Your task to perform on an android device: Show me the best rated 42 inch TV on Walmart. Image 0: 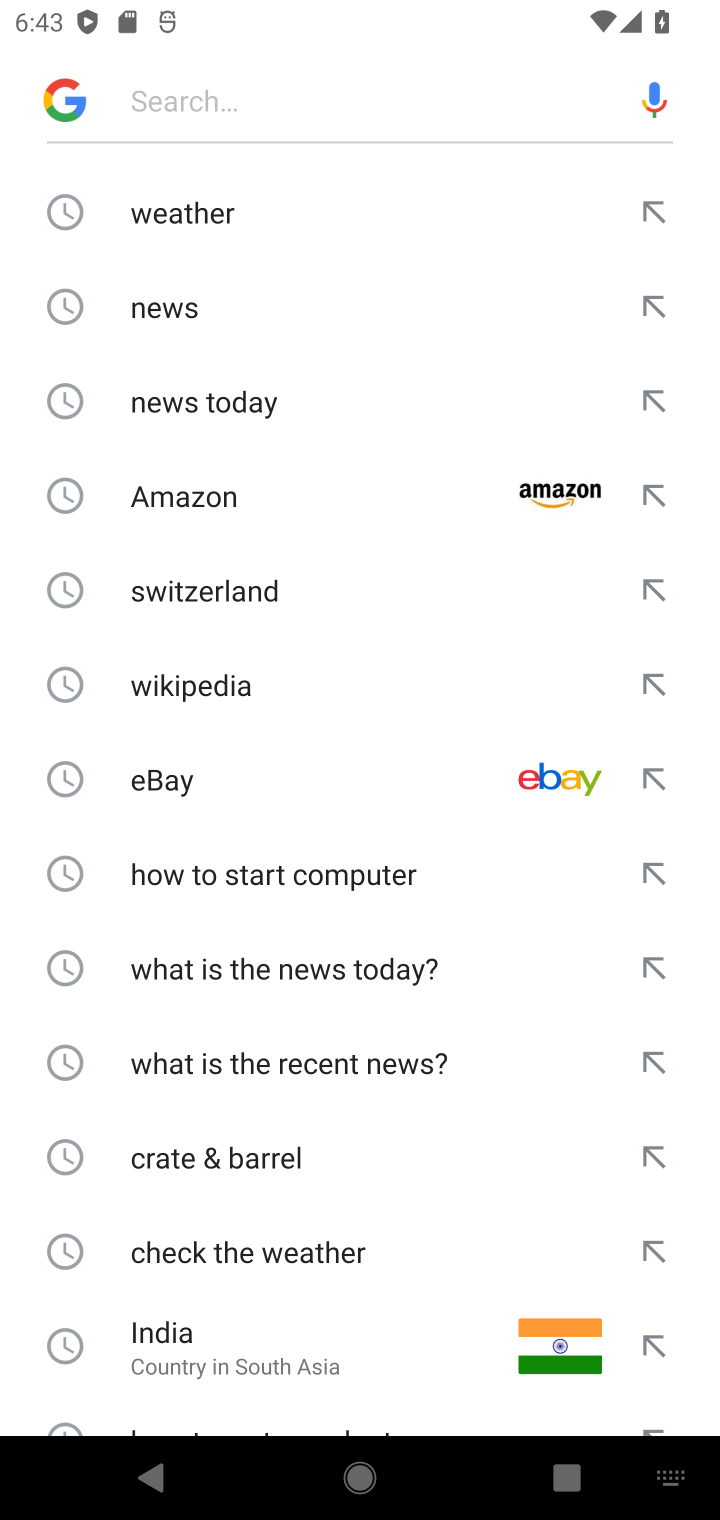
Step 0: press home button
Your task to perform on an android device: Show me the best rated 42 inch TV on Walmart. Image 1: 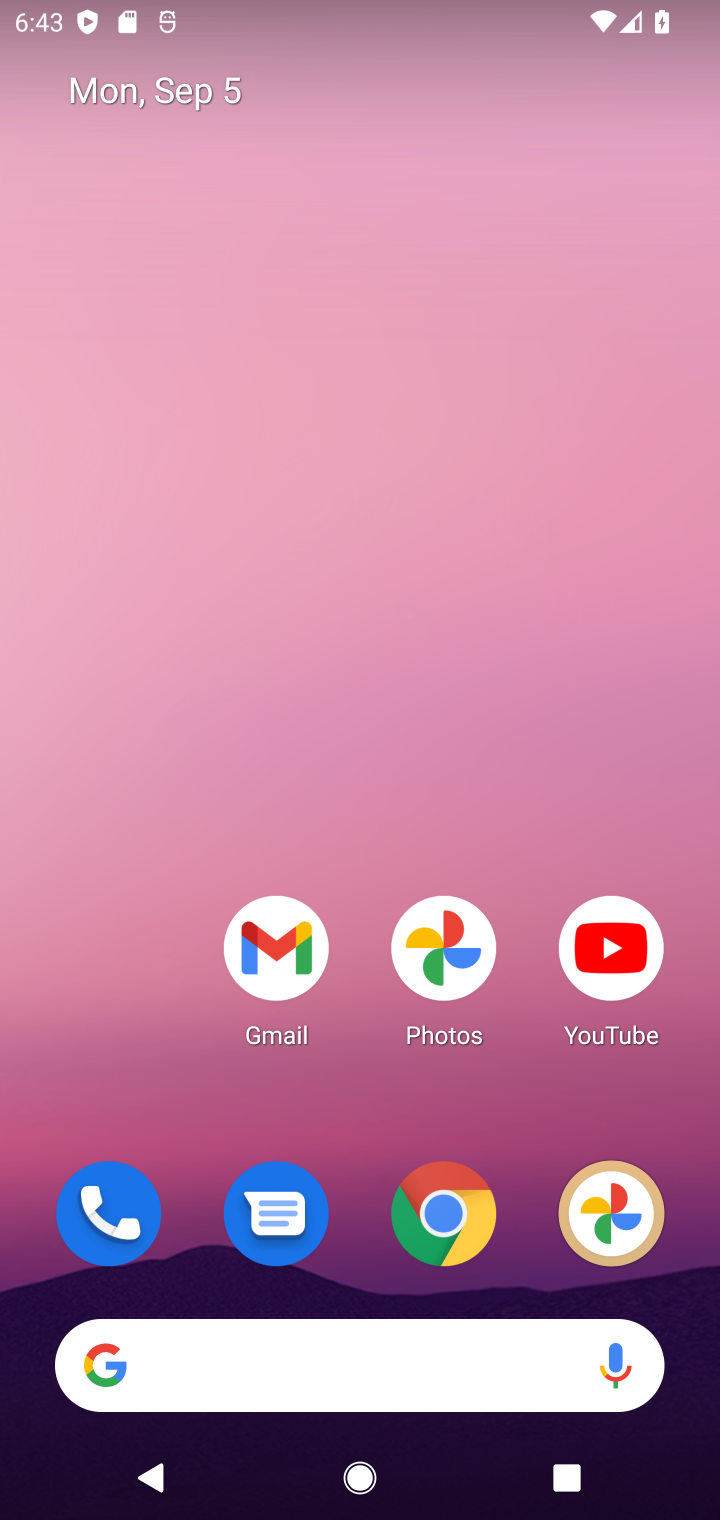
Step 1: click (424, 1231)
Your task to perform on an android device: Show me the best rated 42 inch TV on Walmart. Image 2: 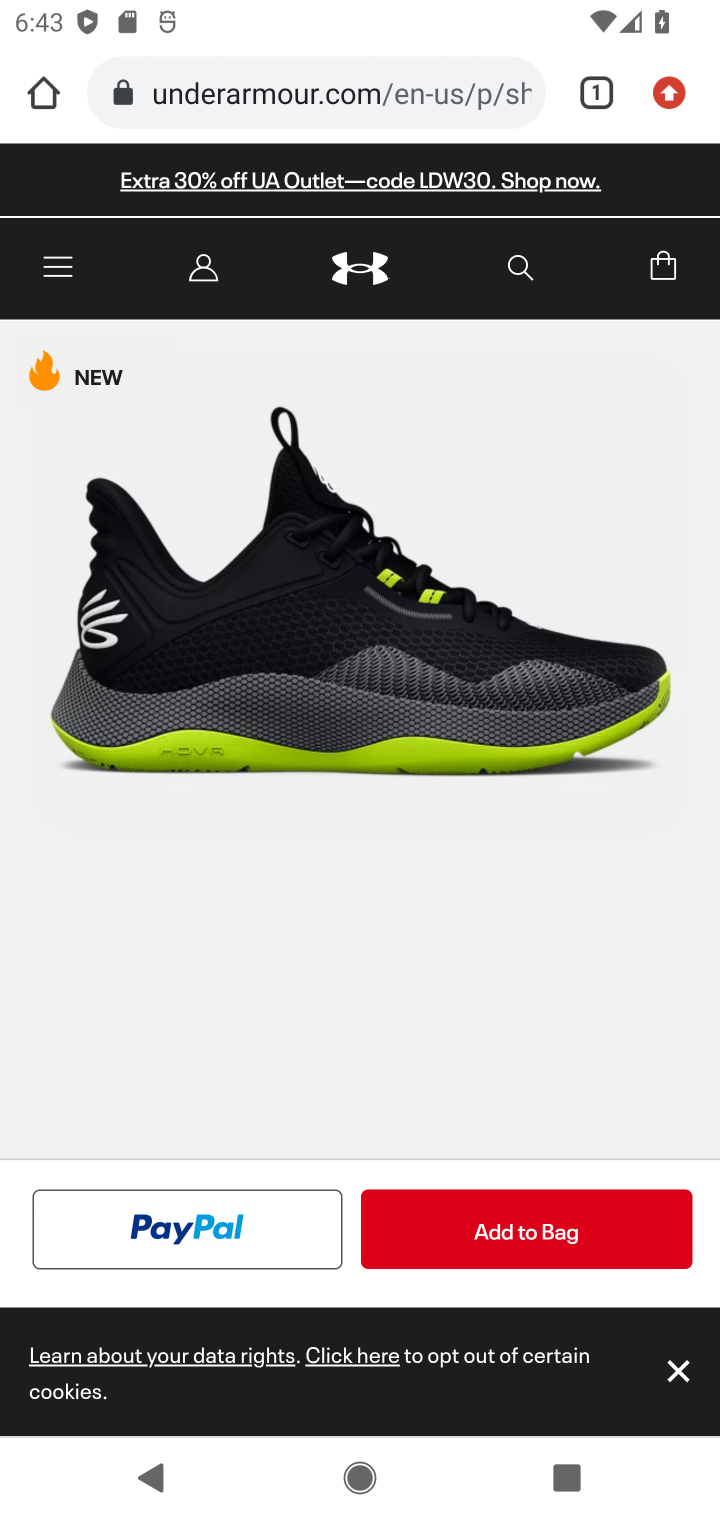
Step 2: click (353, 103)
Your task to perform on an android device: Show me the best rated 42 inch TV on Walmart. Image 3: 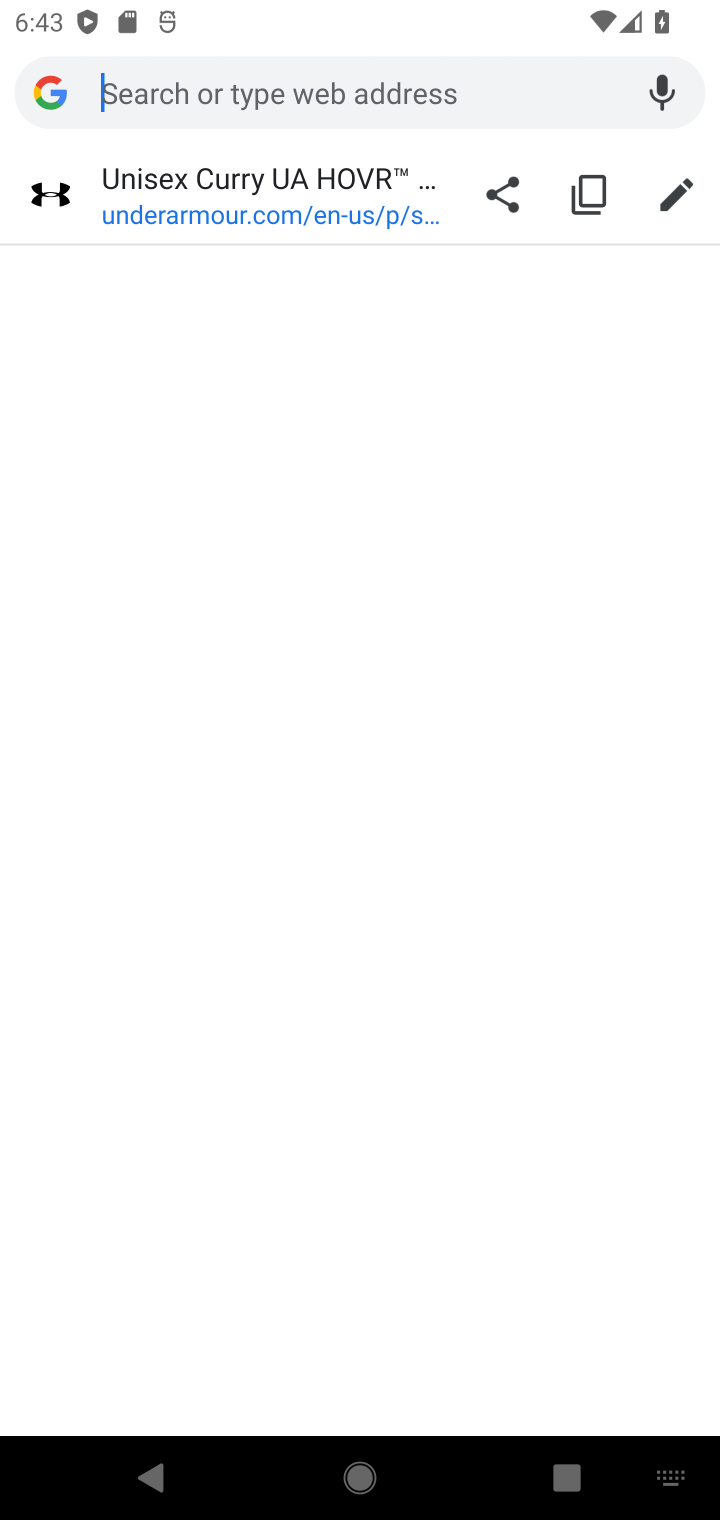
Step 3: type "Walmart."
Your task to perform on an android device: Show me the best rated 42 inch TV on Walmart. Image 4: 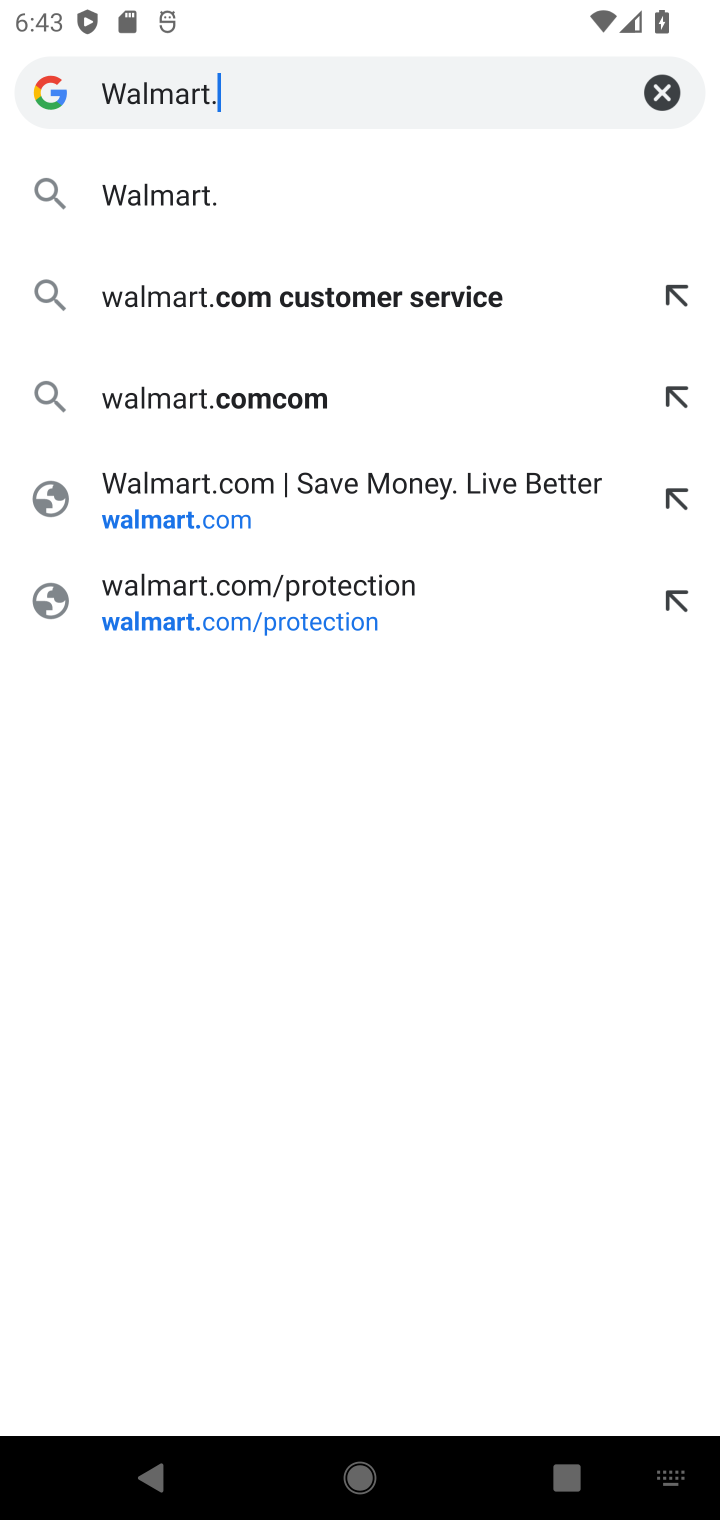
Step 4: click (140, 217)
Your task to perform on an android device: Show me the best rated 42 inch TV on Walmart. Image 5: 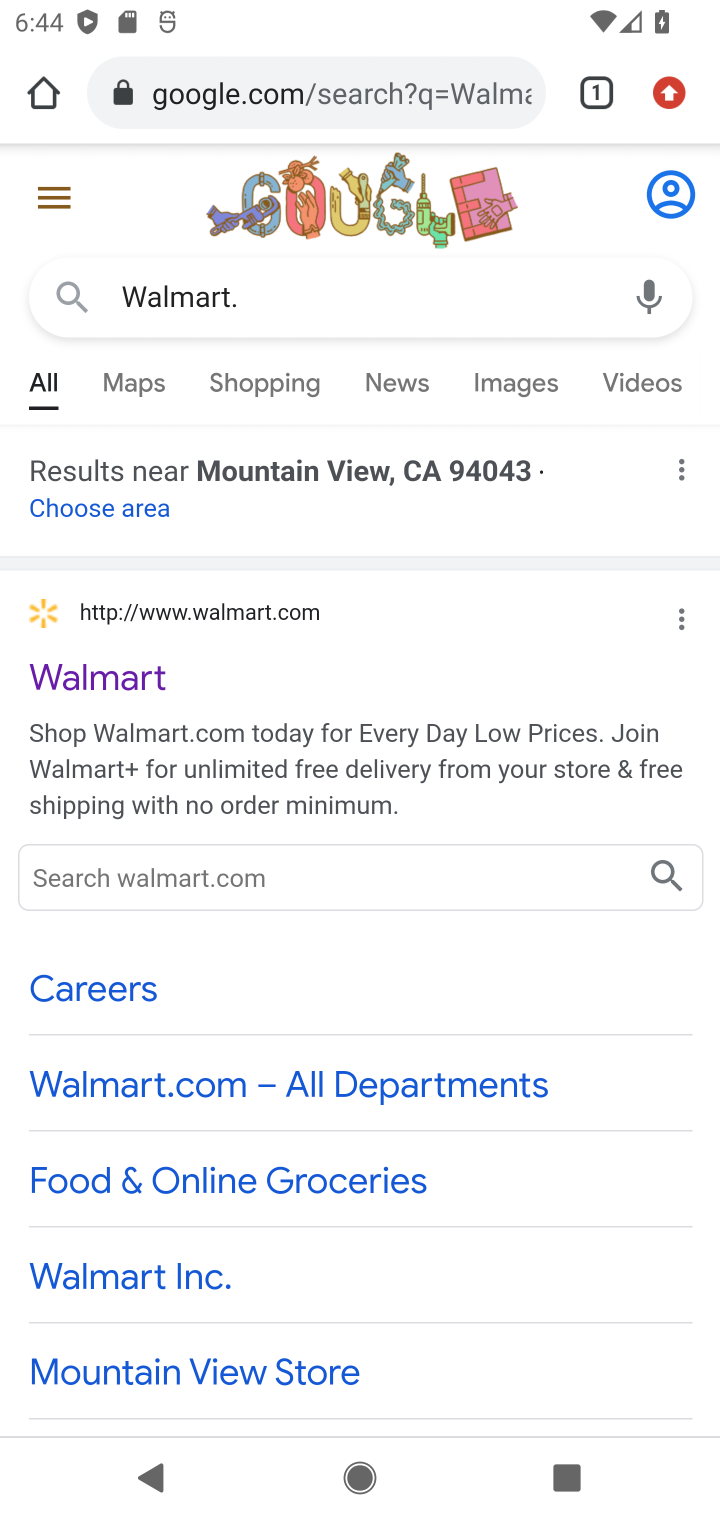
Step 5: drag from (376, 932) to (414, 426)
Your task to perform on an android device: Show me the best rated 42 inch TV on Walmart. Image 6: 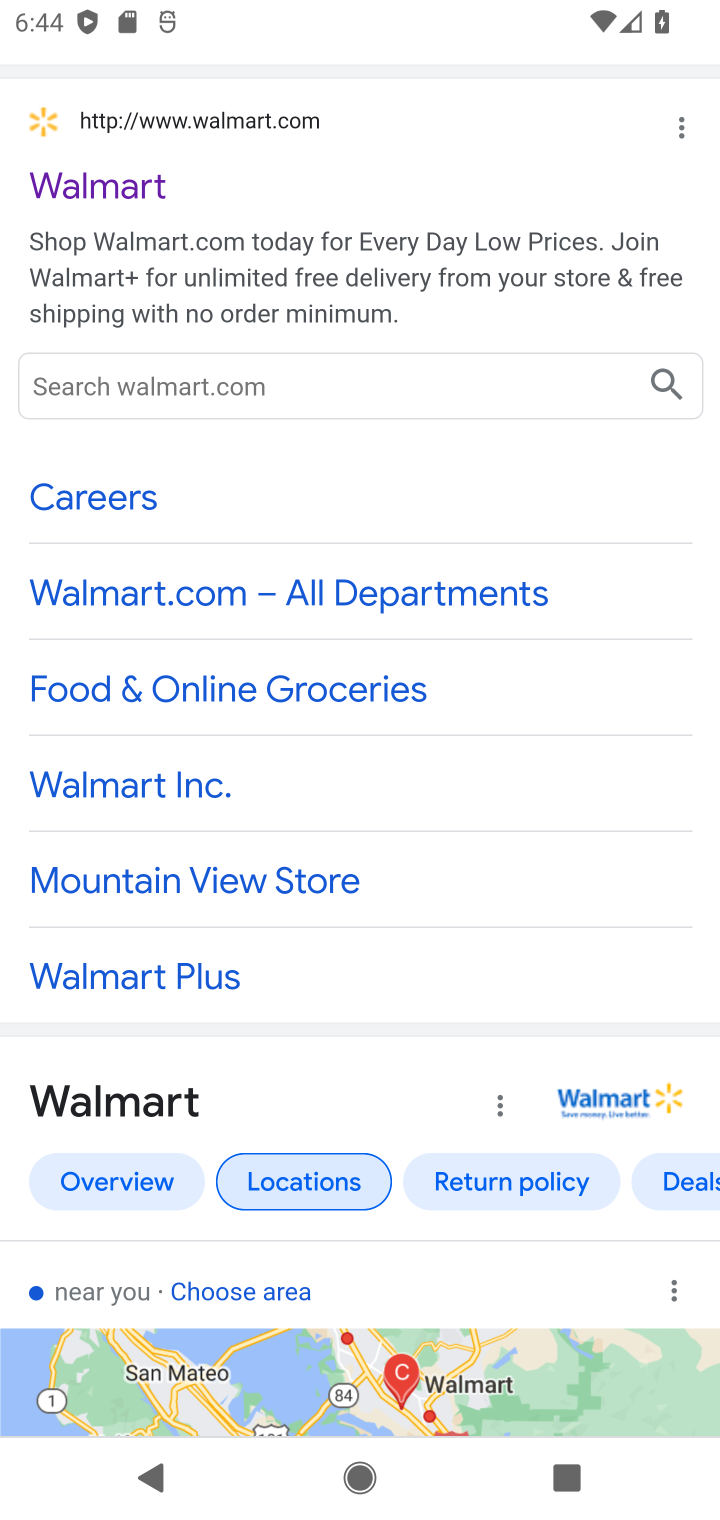
Step 6: drag from (429, 1274) to (462, 335)
Your task to perform on an android device: Show me the best rated 42 inch TV on Walmart. Image 7: 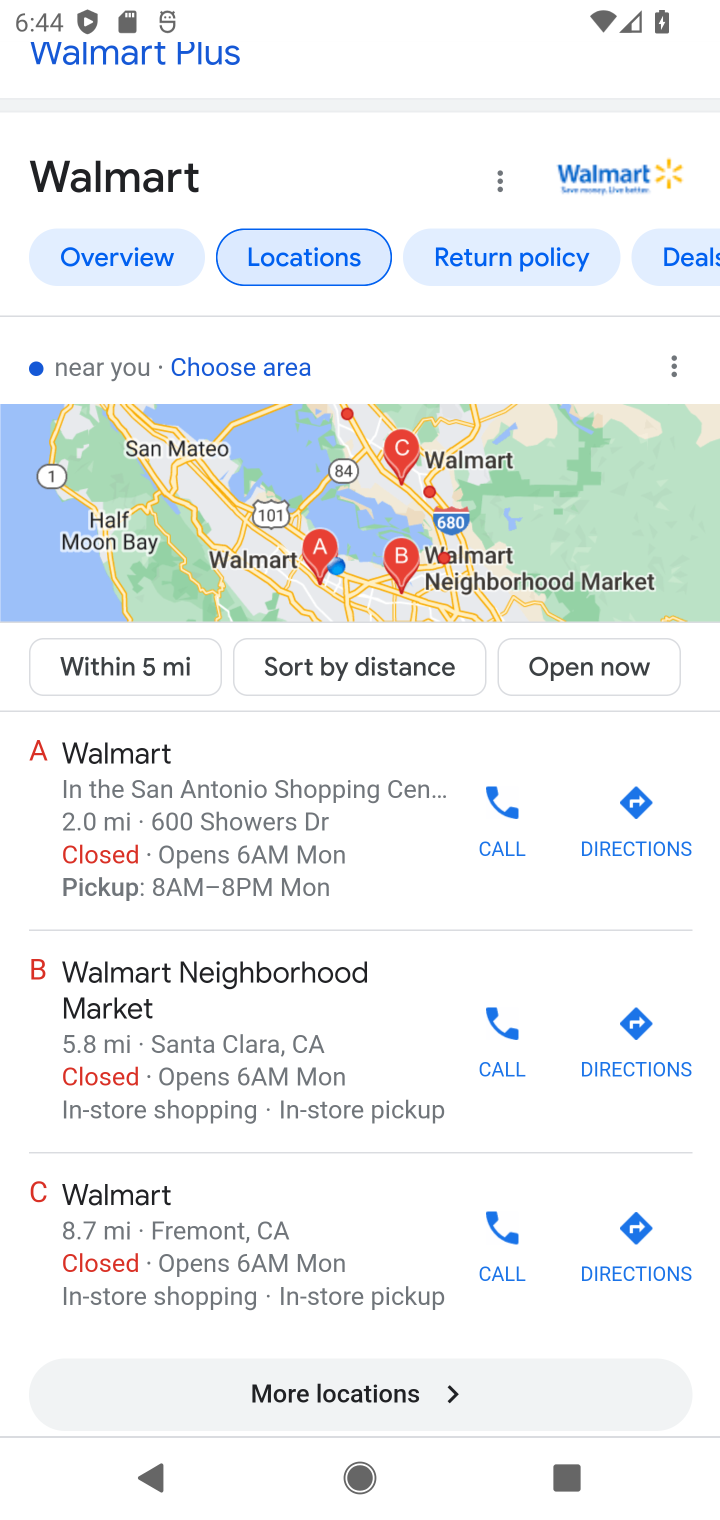
Step 7: drag from (452, 1196) to (492, 422)
Your task to perform on an android device: Show me the best rated 42 inch TV on Walmart. Image 8: 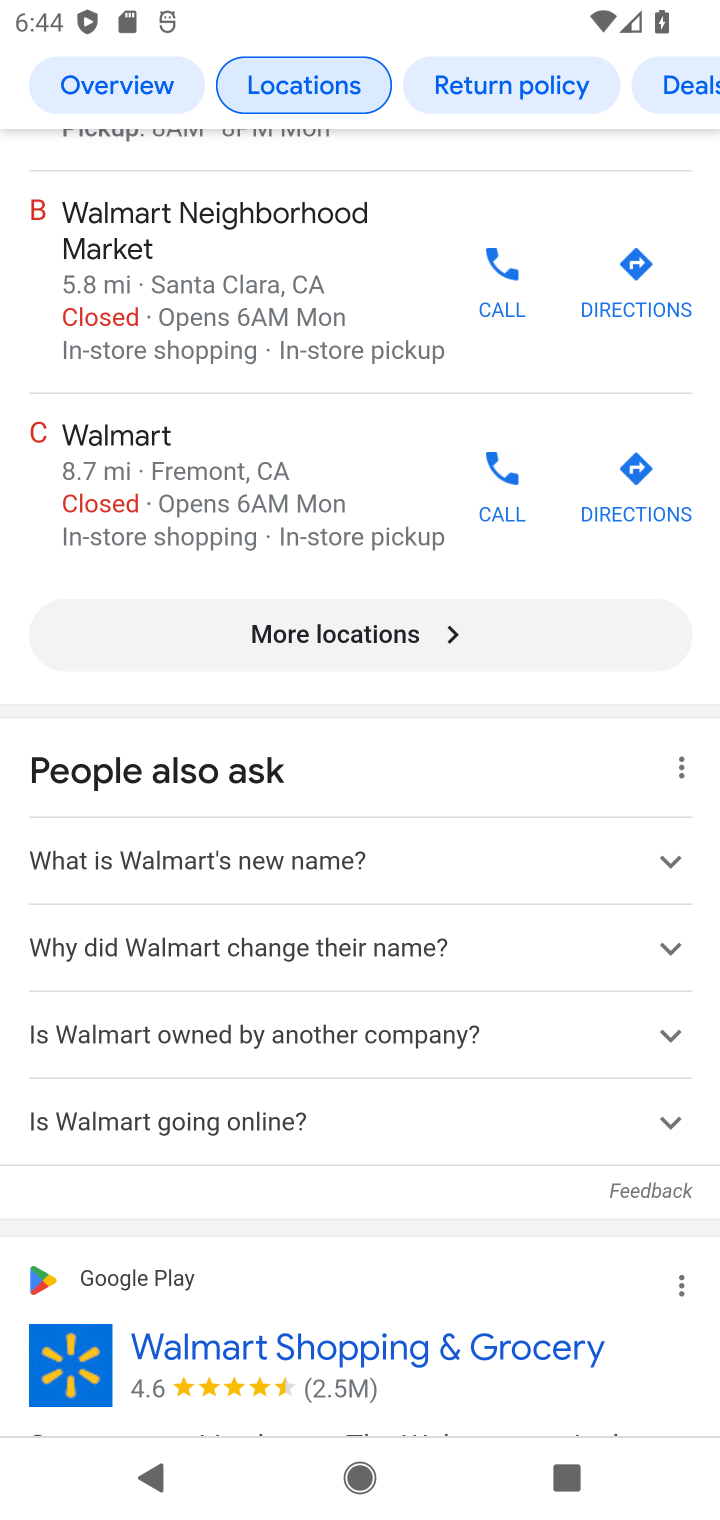
Step 8: drag from (409, 1062) to (442, 446)
Your task to perform on an android device: Show me the best rated 42 inch TV on Walmart. Image 9: 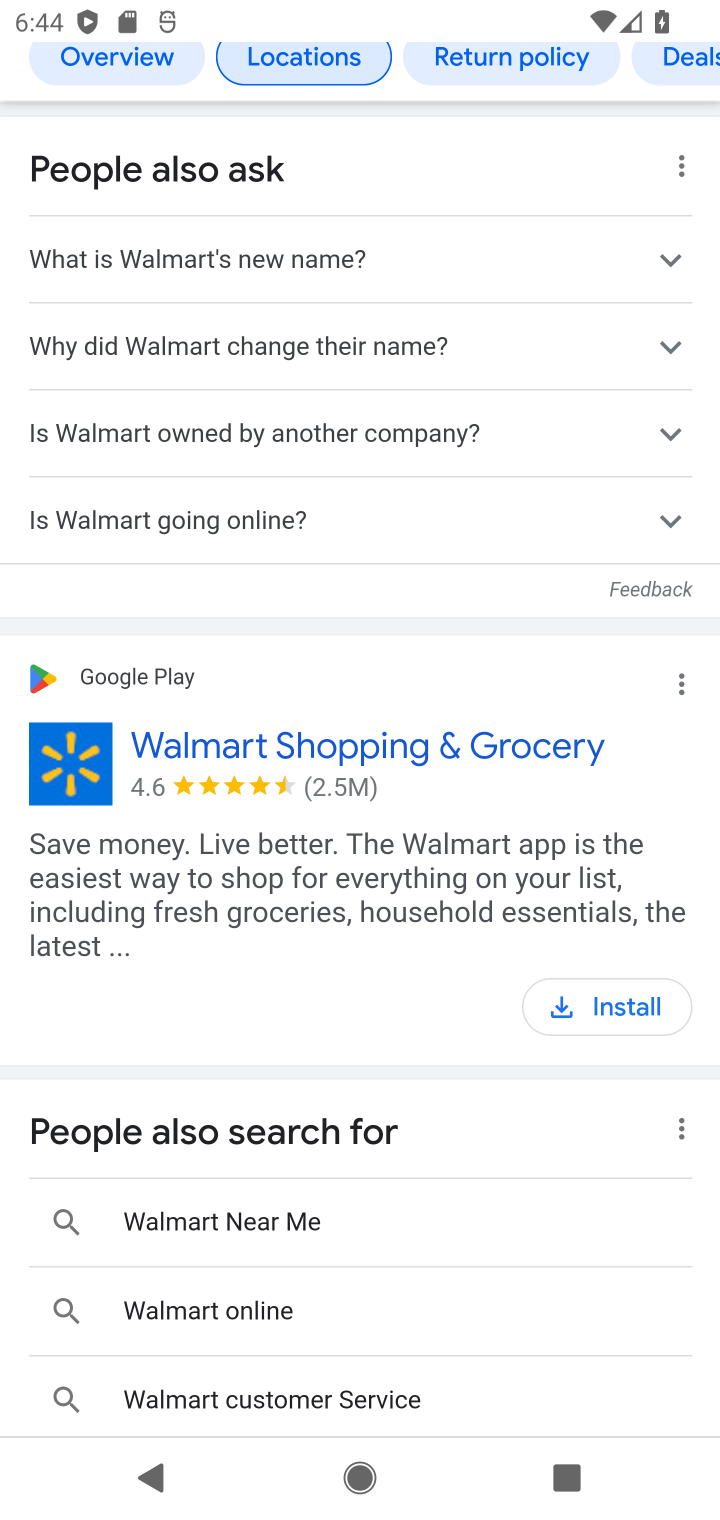
Step 9: drag from (280, 909) to (326, 271)
Your task to perform on an android device: Show me the best rated 42 inch TV on Walmart. Image 10: 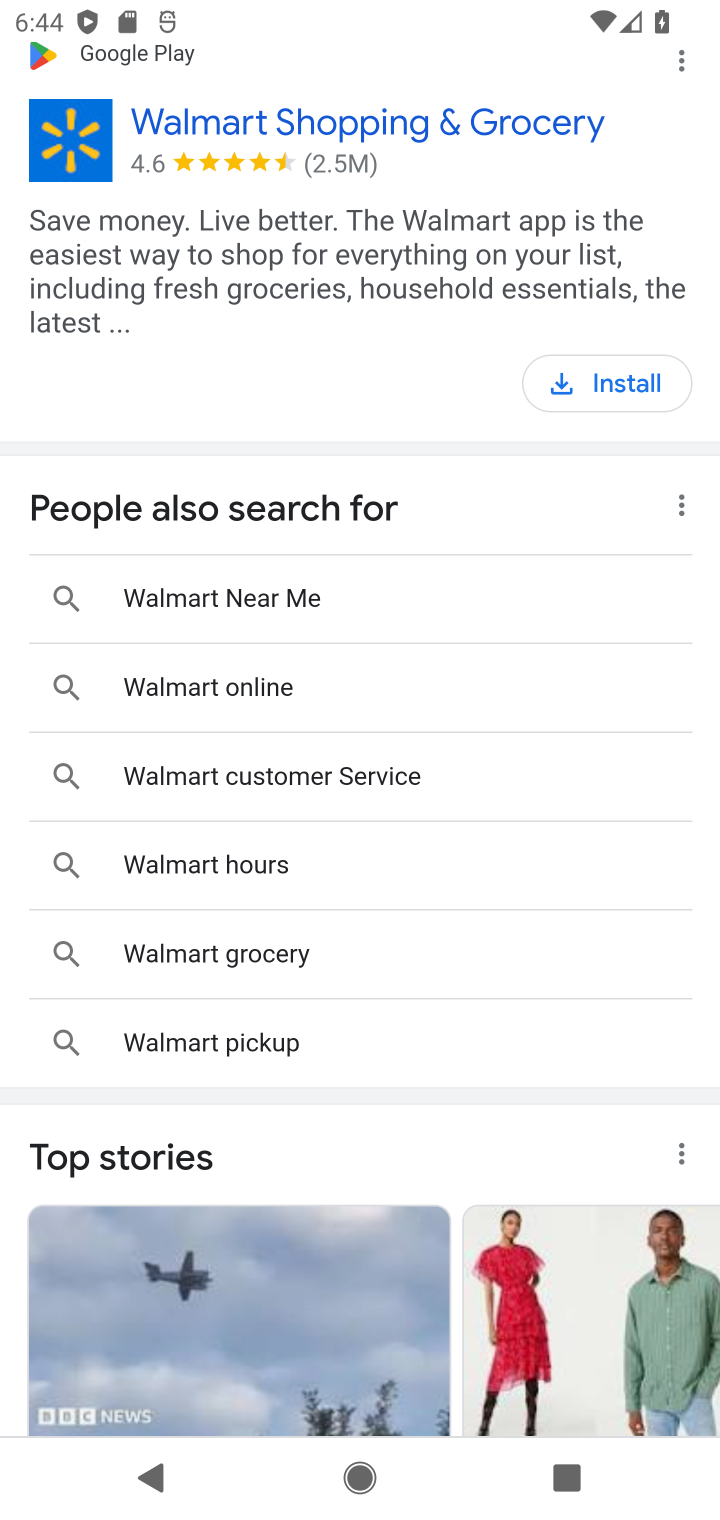
Step 10: drag from (374, 1212) to (426, 276)
Your task to perform on an android device: Show me the best rated 42 inch TV on Walmart. Image 11: 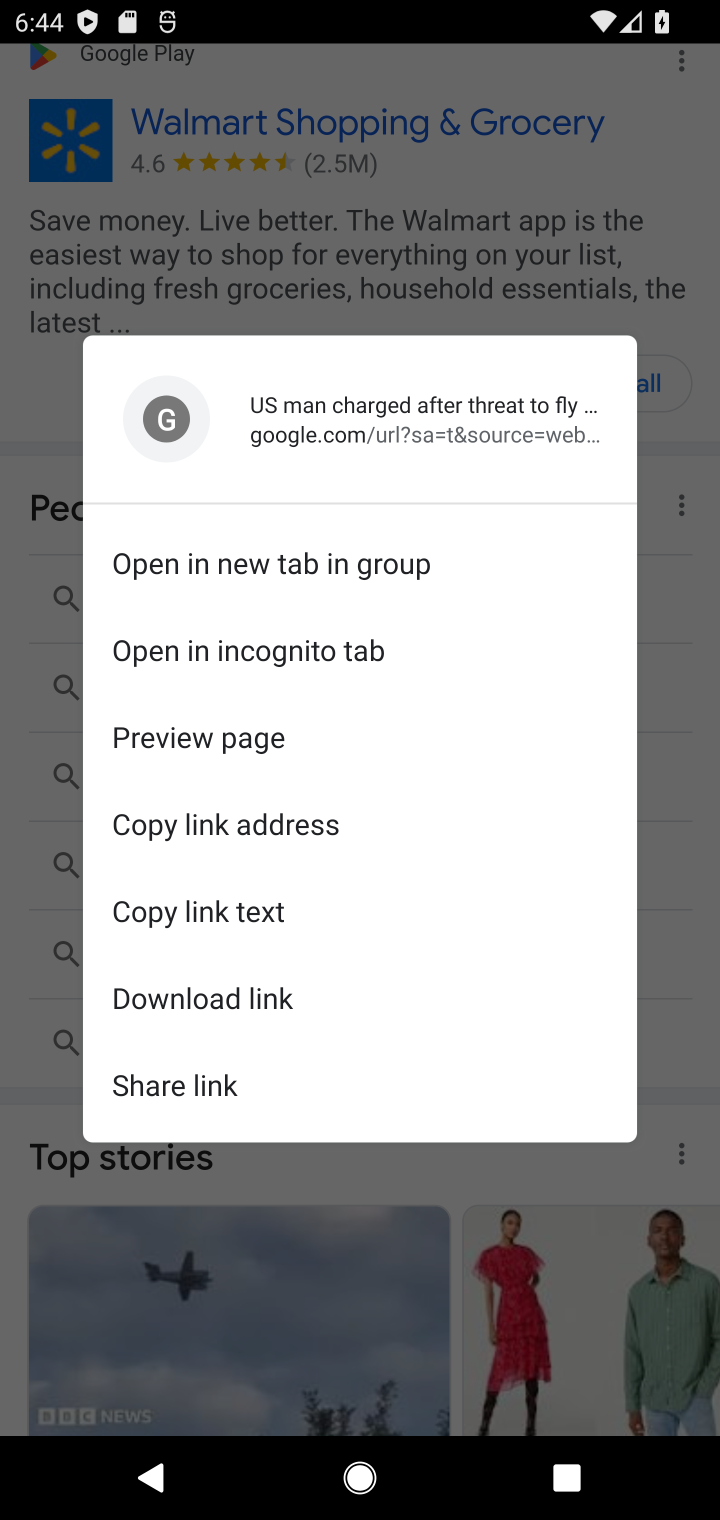
Step 11: click (710, 927)
Your task to perform on an android device: Show me the best rated 42 inch TV on Walmart. Image 12: 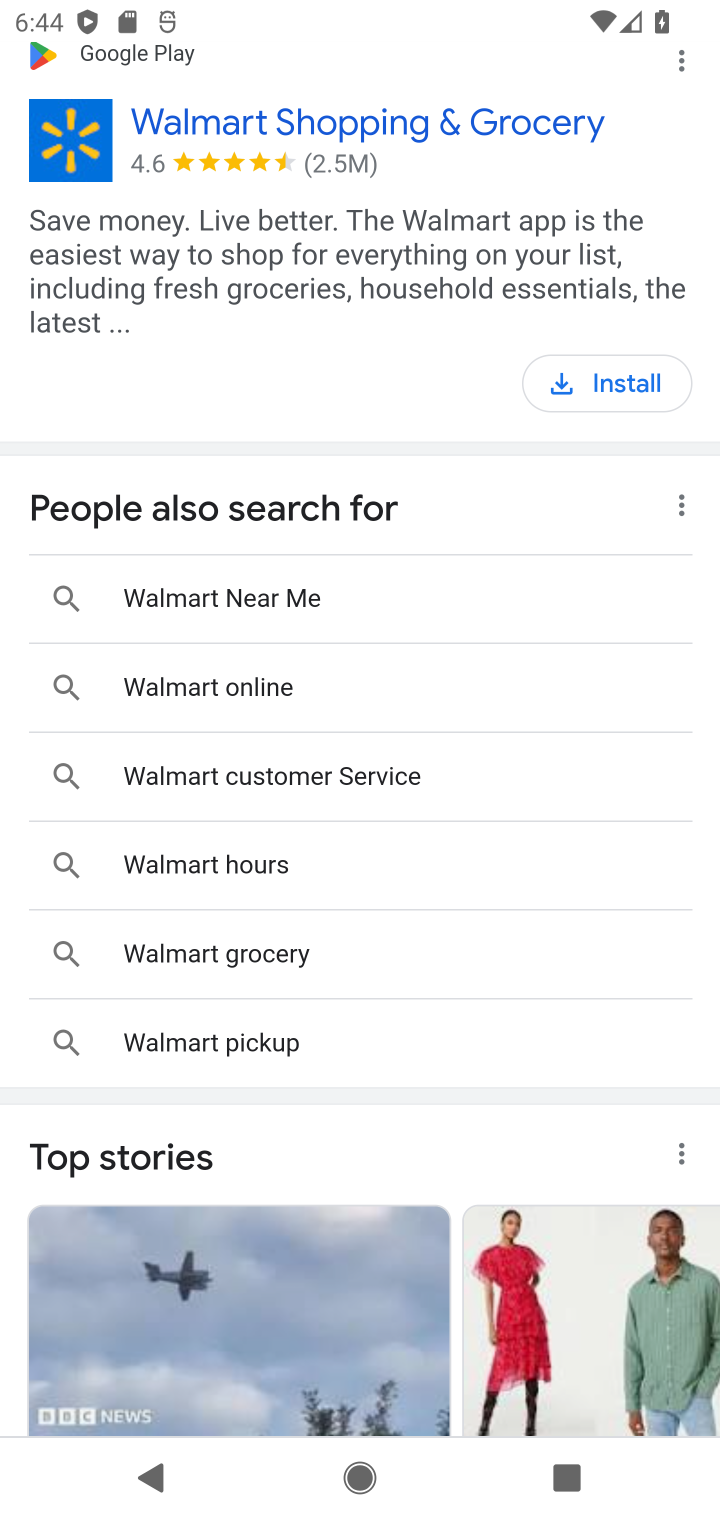
Step 12: drag from (318, 880) to (288, 1021)
Your task to perform on an android device: Show me the best rated 42 inch TV on Walmart. Image 13: 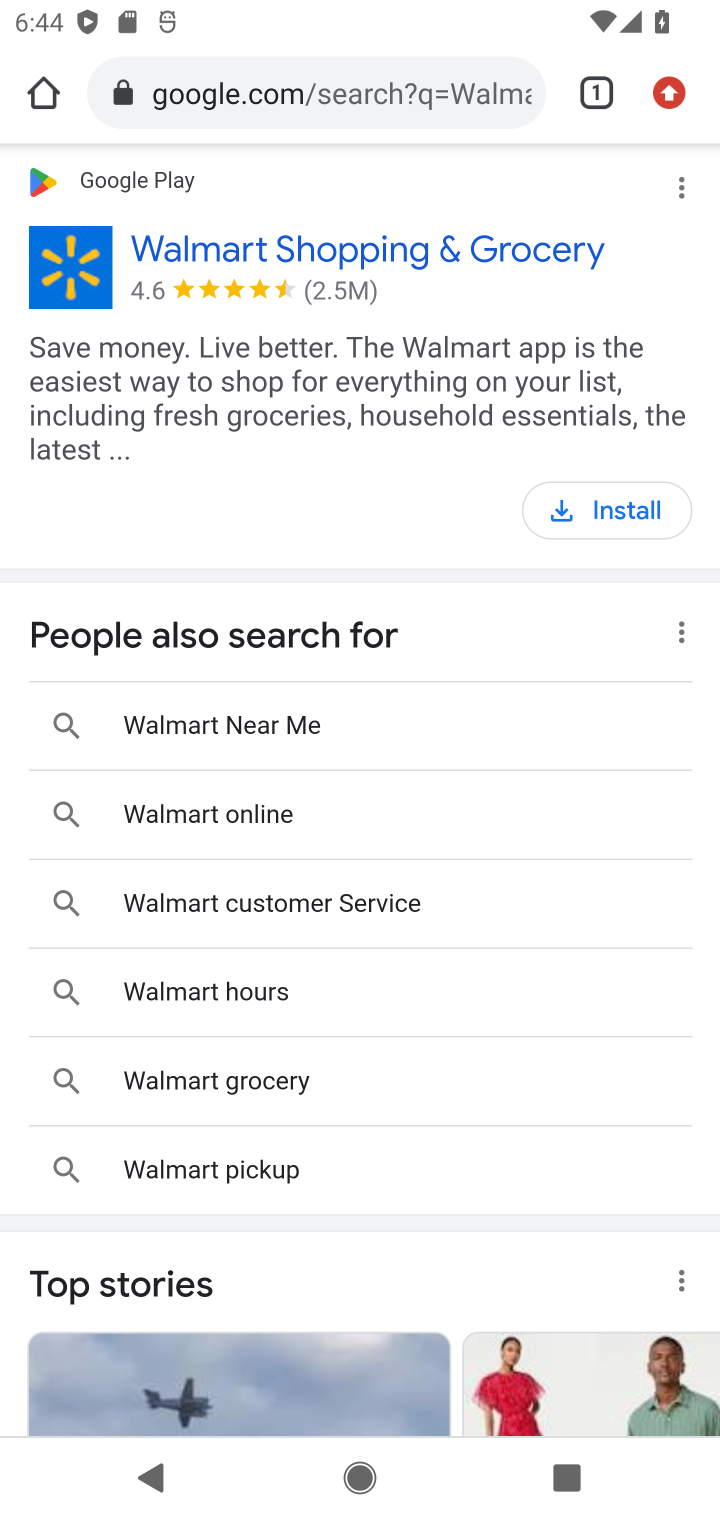
Step 13: drag from (90, 902) to (82, 971)
Your task to perform on an android device: Show me the best rated 42 inch TV on Walmart. Image 14: 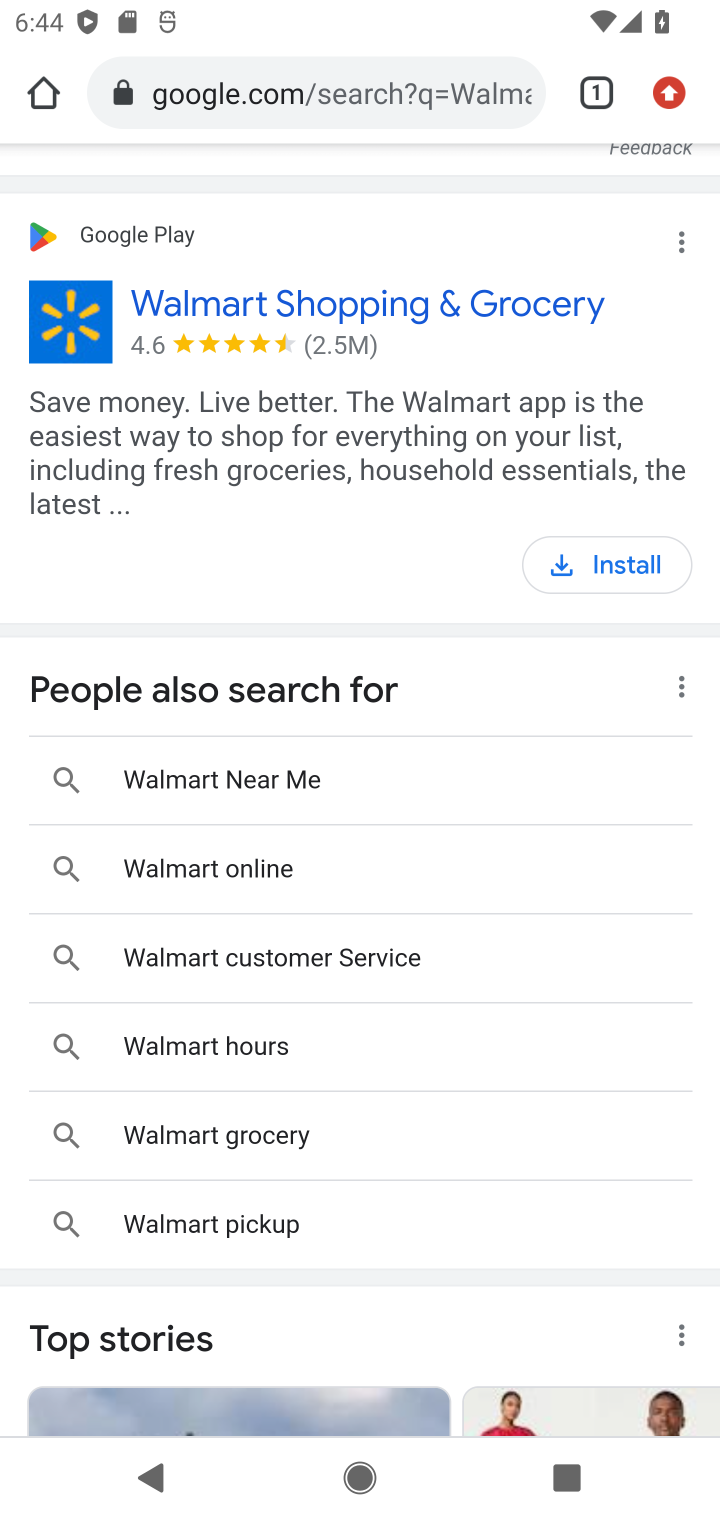
Step 14: drag from (377, 181) to (230, 1172)
Your task to perform on an android device: Show me the best rated 42 inch TV on Walmart. Image 15: 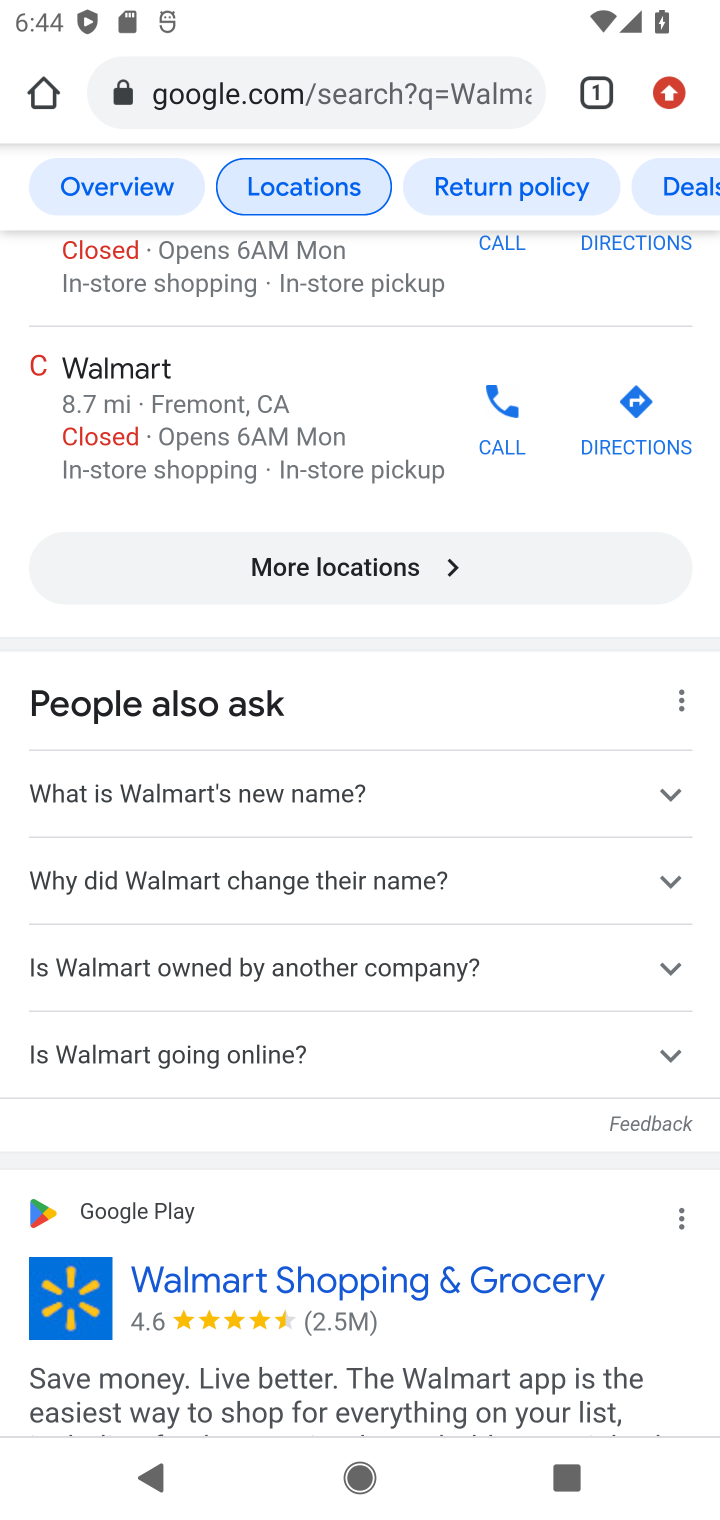
Step 15: drag from (560, 575) to (424, 1248)
Your task to perform on an android device: Show me the best rated 42 inch TV on Walmart. Image 16: 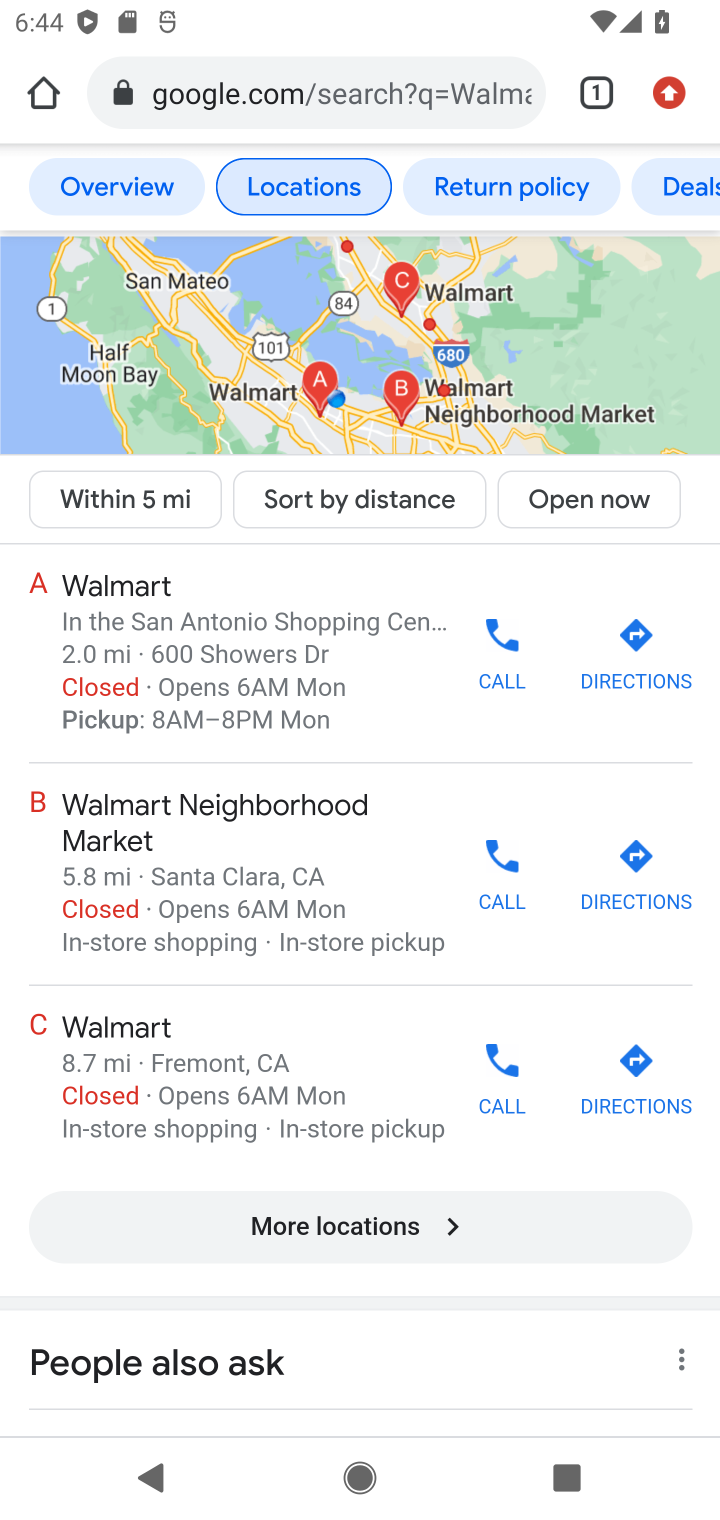
Step 16: drag from (695, 588) to (657, 1409)
Your task to perform on an android device: Show me the best rated 42 inch TV on Walmart. Image 17: 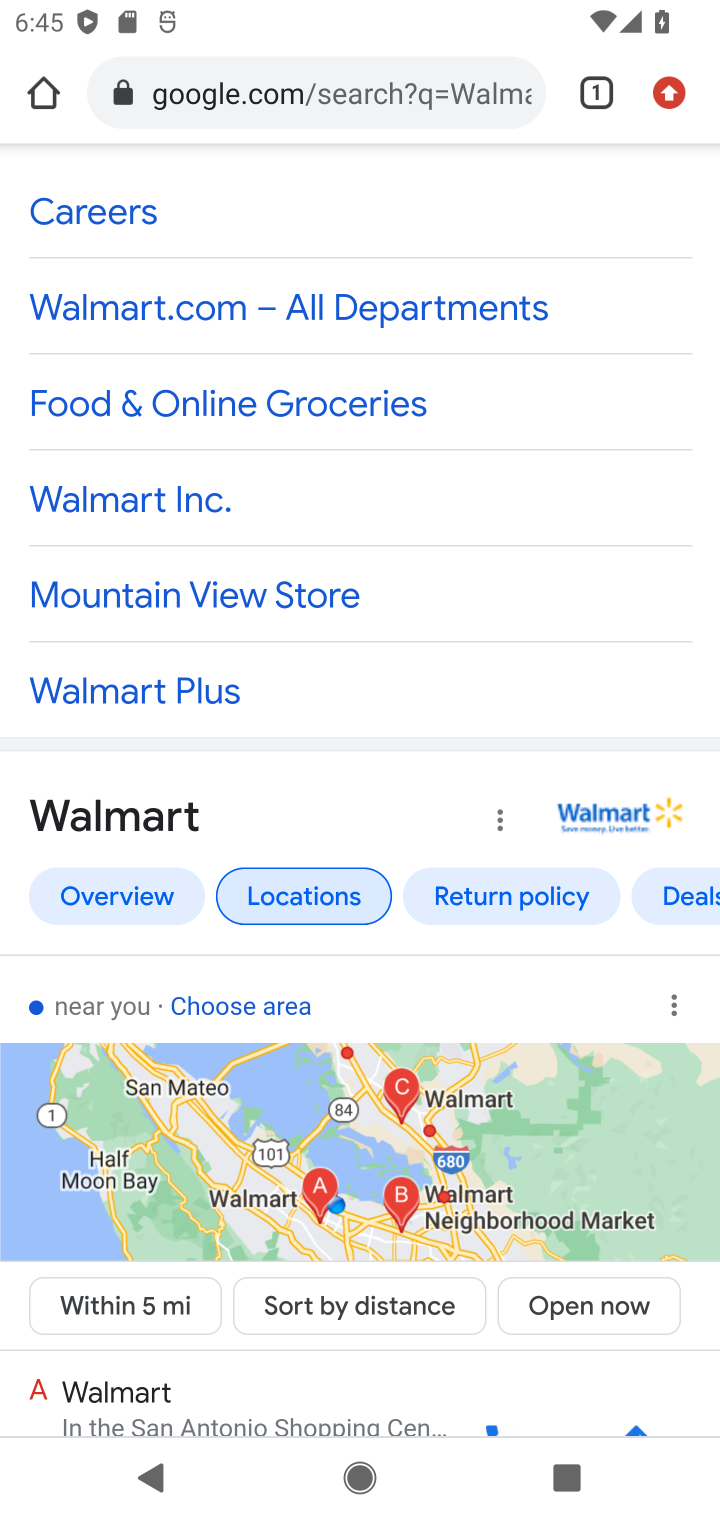
Step 17: drag from (643, 452) to (573, 1189)
Your task to perform on an android device: Show me the best rated 42 inch TV on Walmart. Image 18: 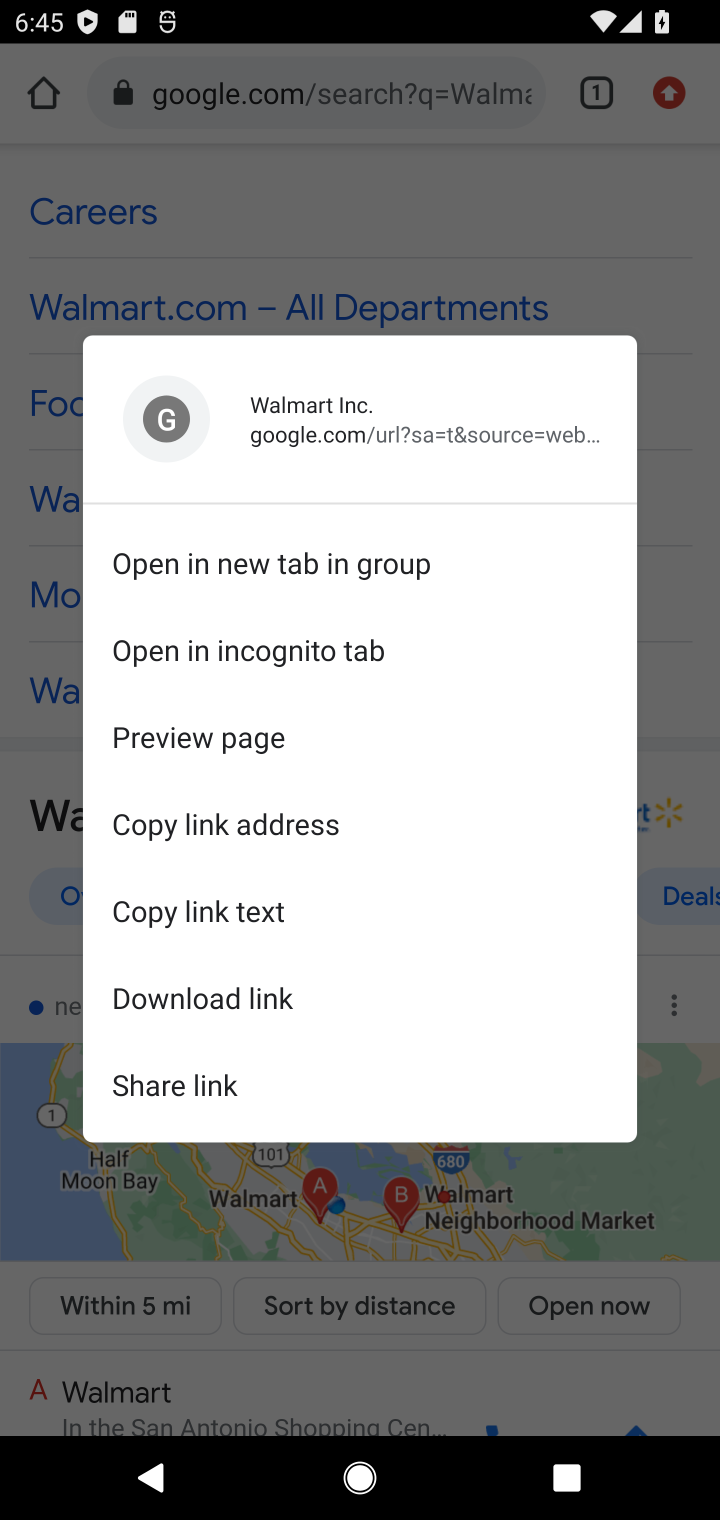
Step 18: click (684, 268)
Your task to perform on an android device: Show me the best rated 42 inch TV on Walmart. Image 19: 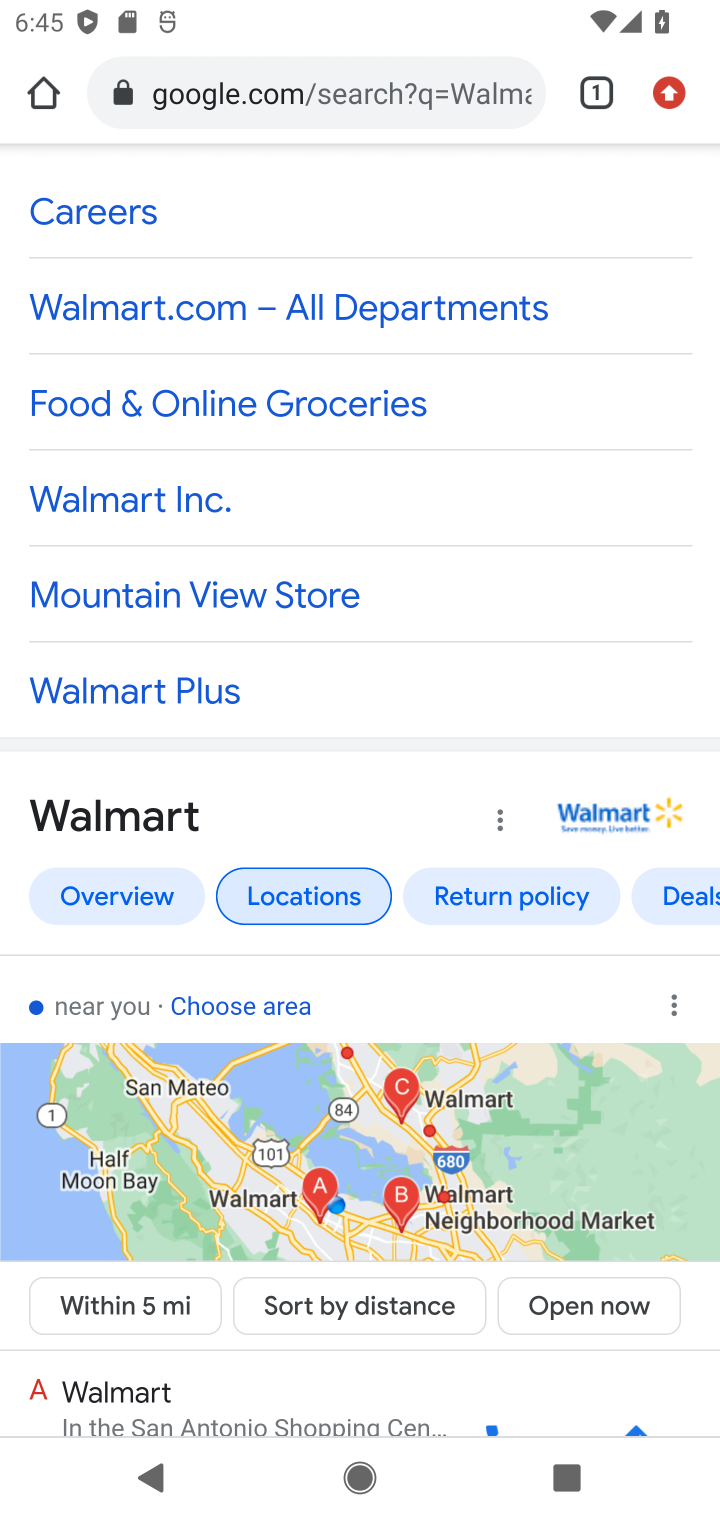
Step 19: drag from (654, 287) to (577, 1187)
Your task to perform on an android device: Show me the best rated 42 inch TV on Walmart. Image 20: 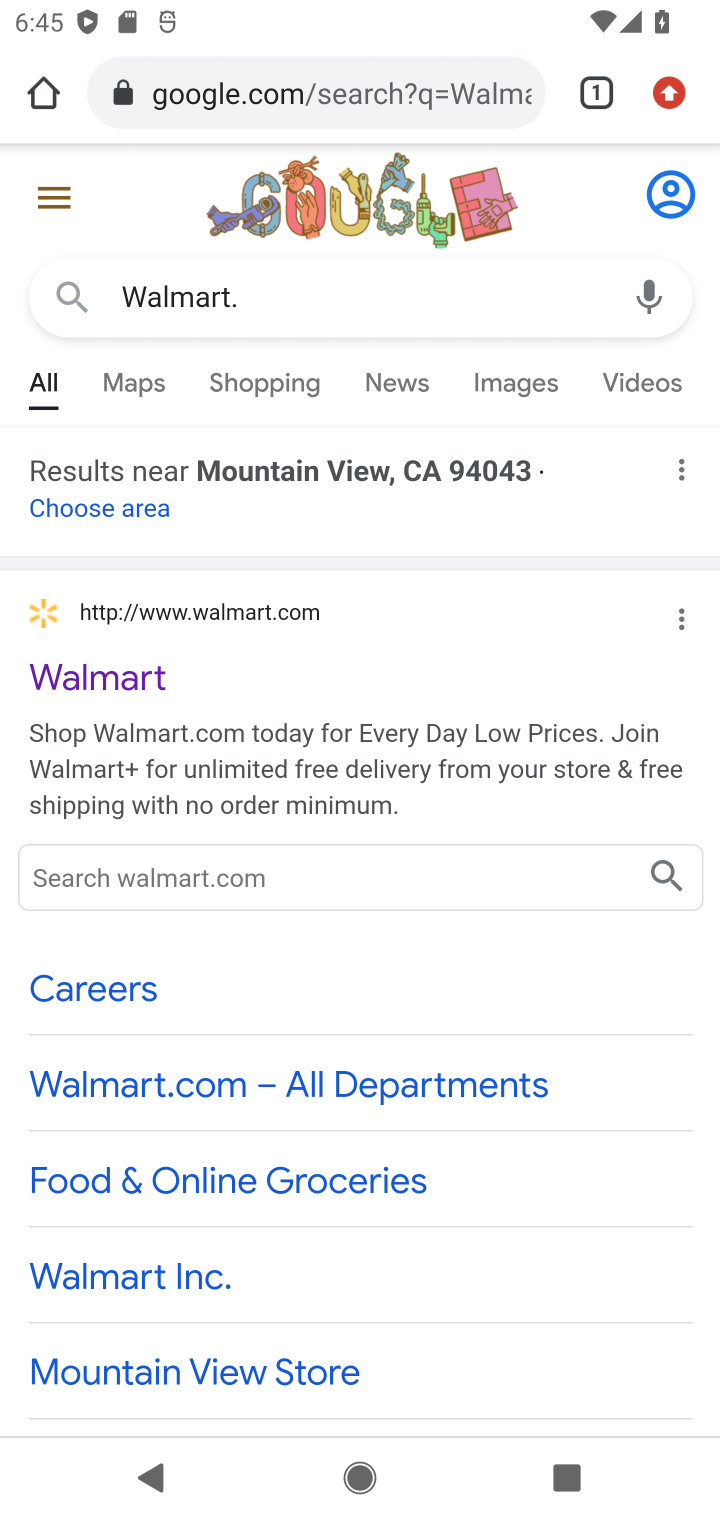
Step 20: click (123, 677)
Your task to perform on an android device: Show me the best rated 42 inch TV on Walmart. Image 21: 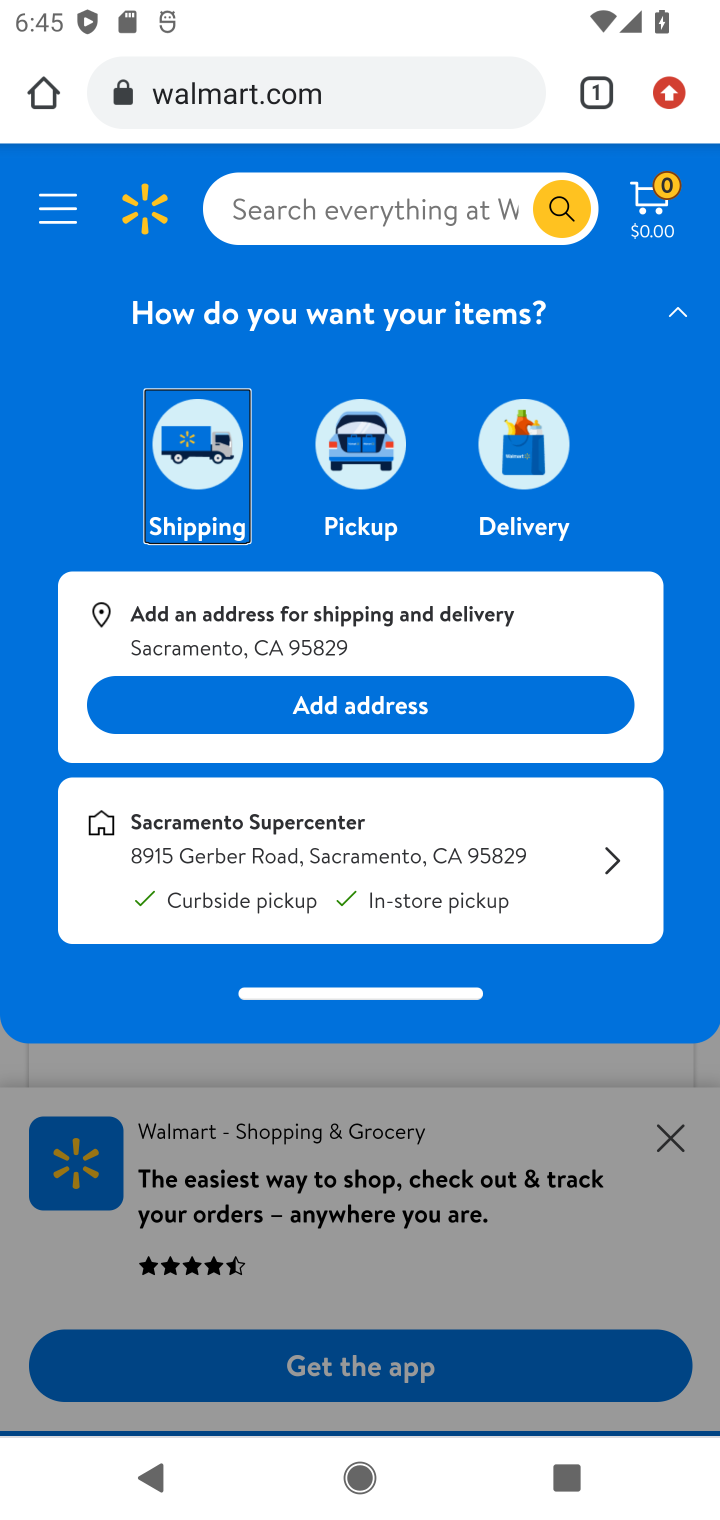
Step 21: click (342, 209)
Your task to perform on an android device: Show me the best rated 42 inch TV on Walmart. Image 22: 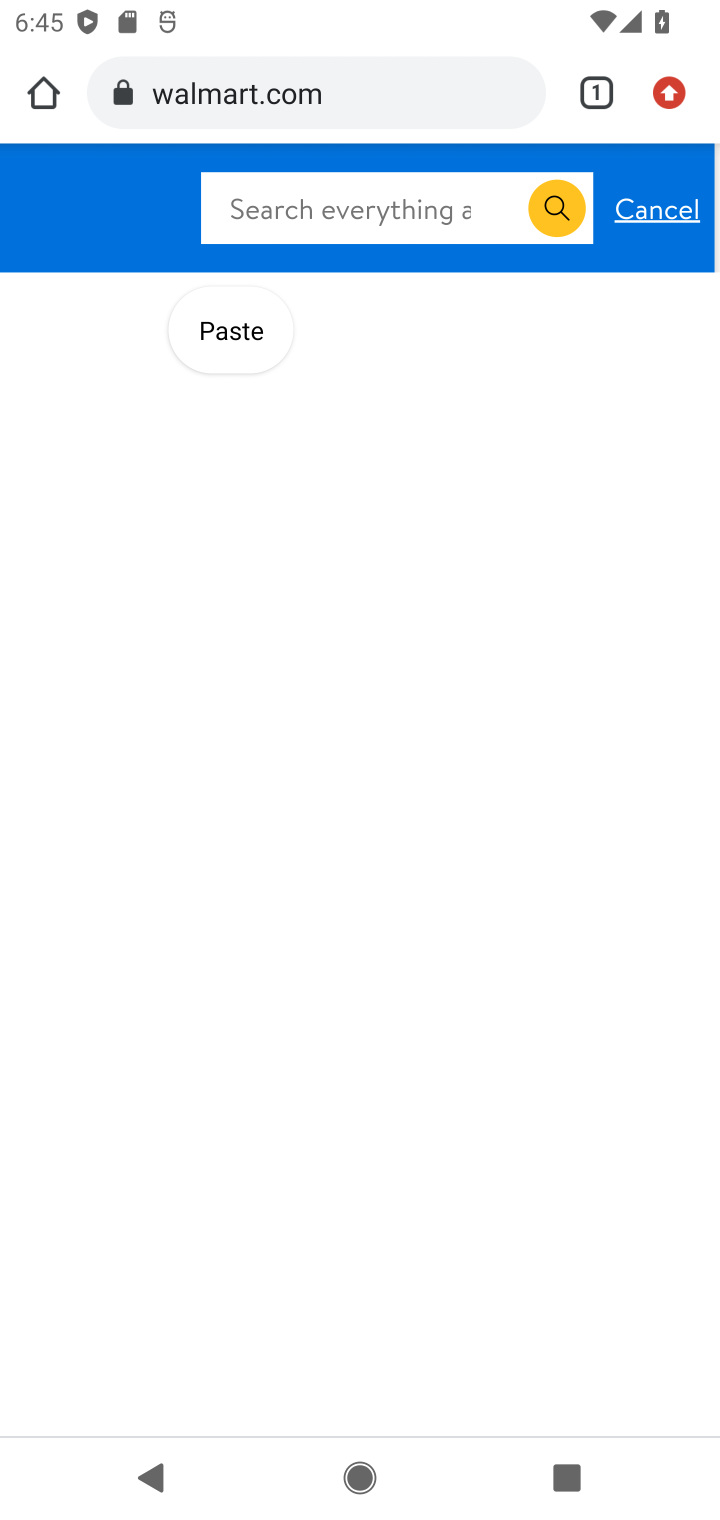
Step 22: click (414, 213)
Your task to perform on an android device: Show me the best rated 42 inch TV on Walmart. Image 23: 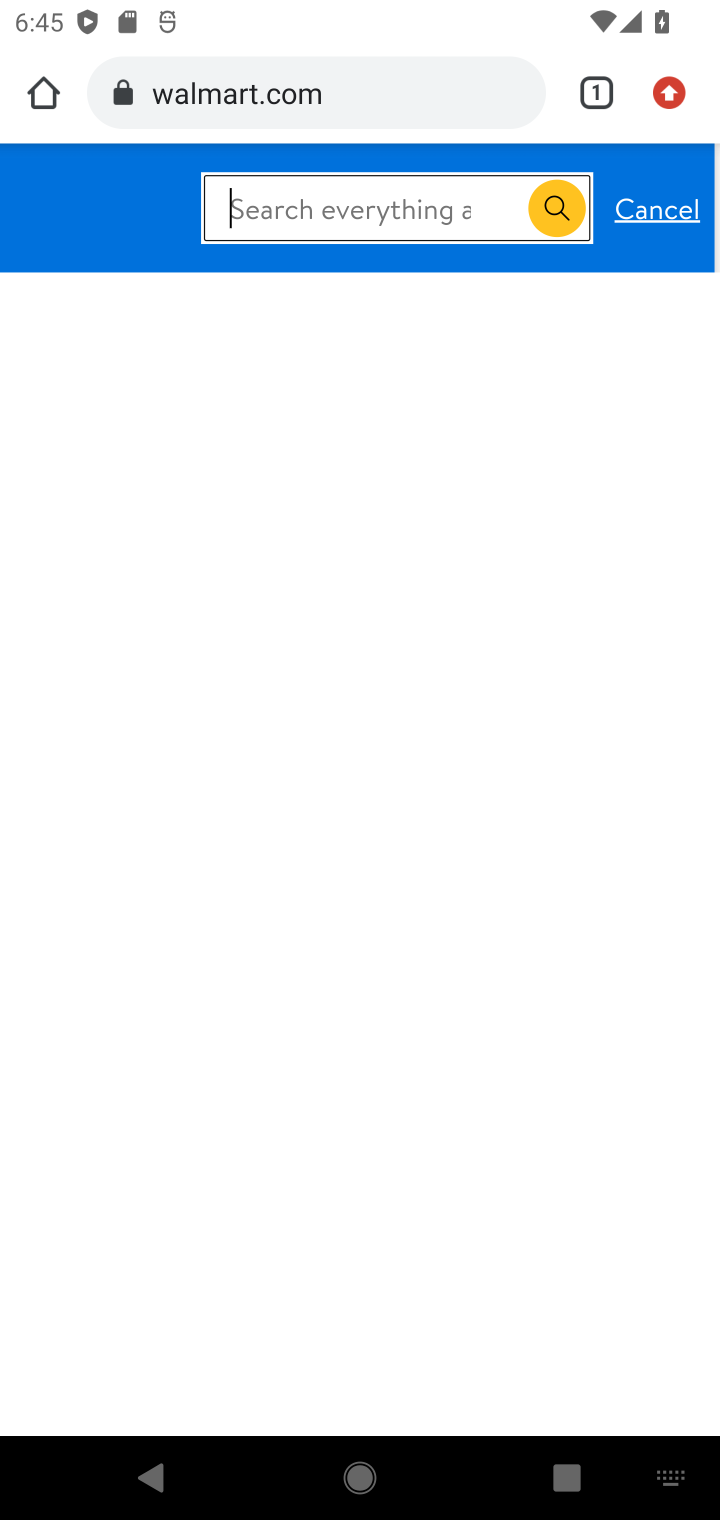
Step 23: type "best rated 42 inch TV "
Your task to perform on an android device: Show me the best rated 42 inch TV on Walmart. Image 24: 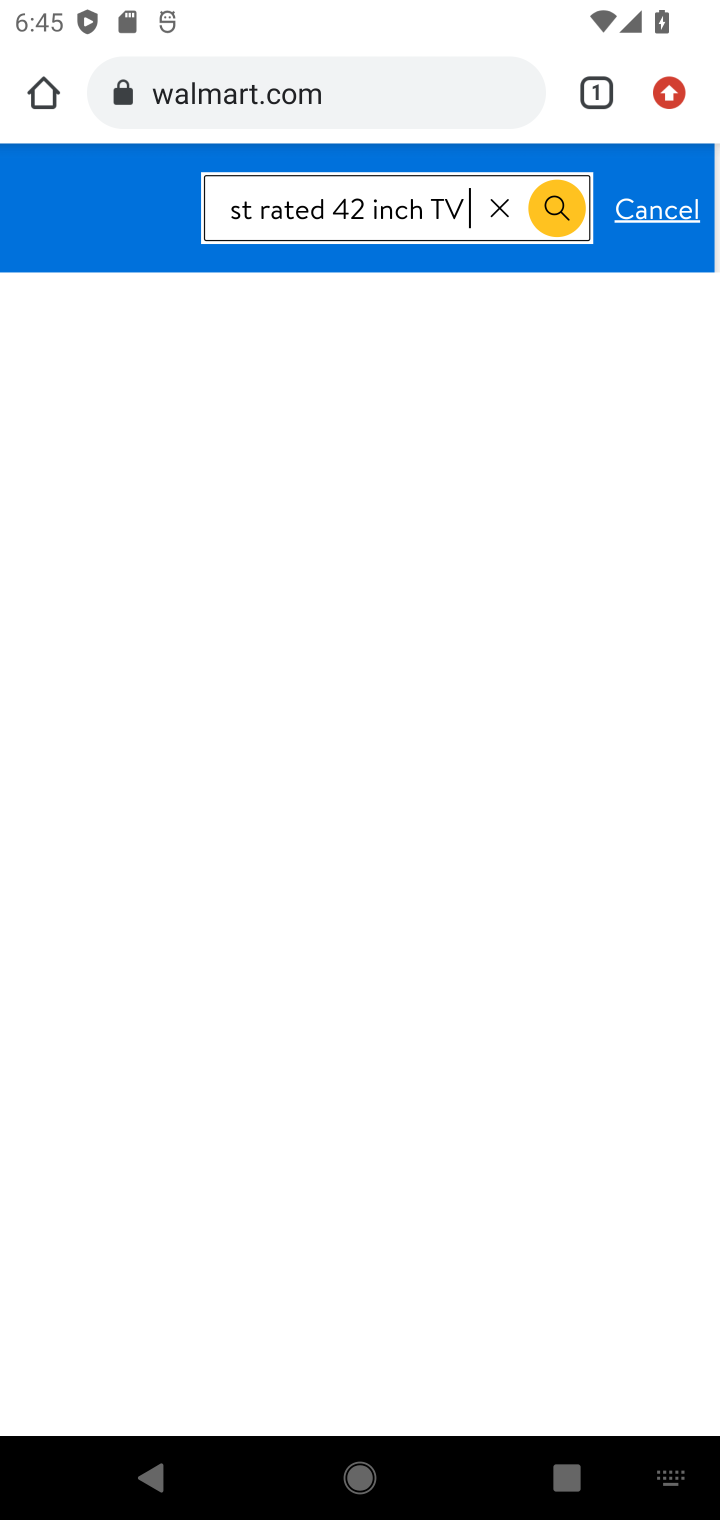
Step 24: click (571, 215)
Your task to perform on an android device: Show me the best rated 42 inch TV on Walmart. Image 25: 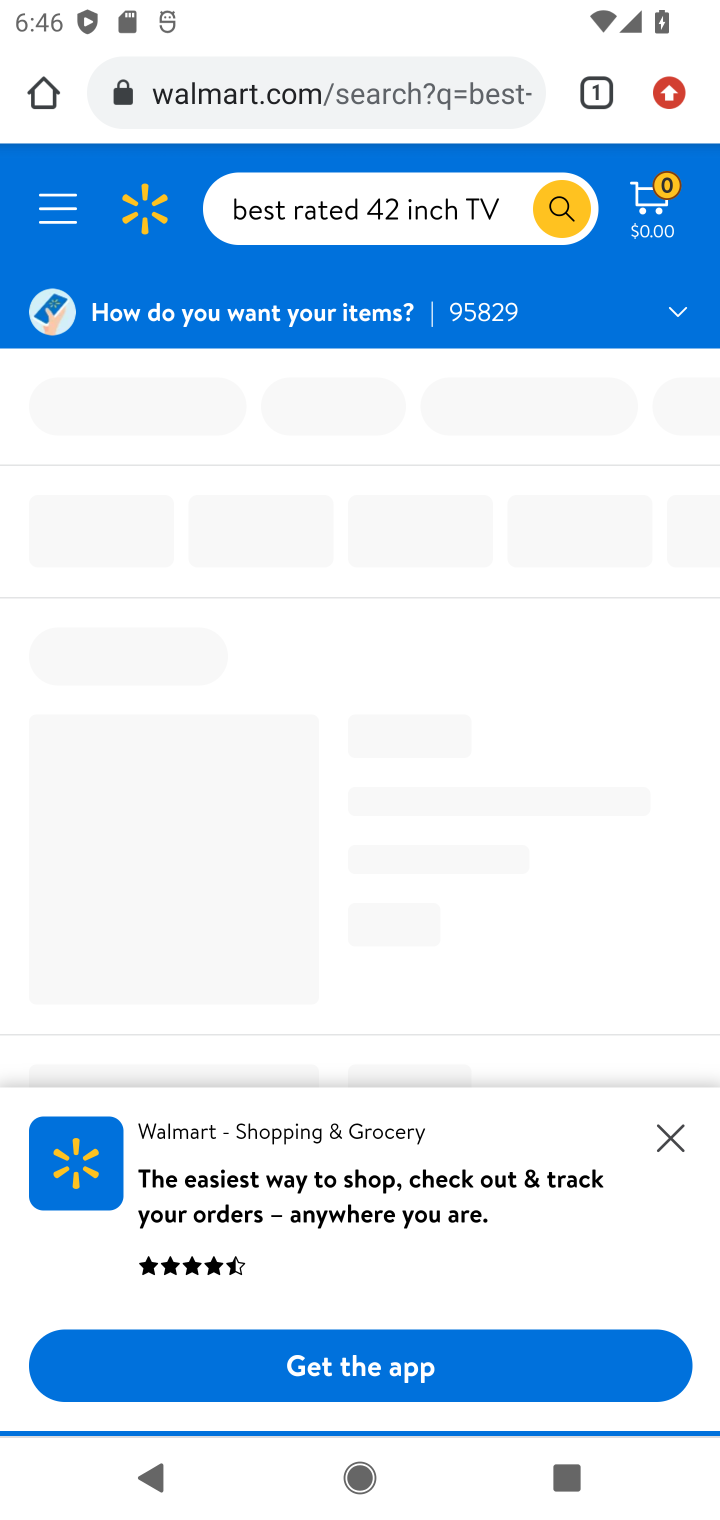
Step 25: click (660, 1149)
Your task to perform on an android device: Show me the best rated 42 inch TV on Walmart. Image 26: 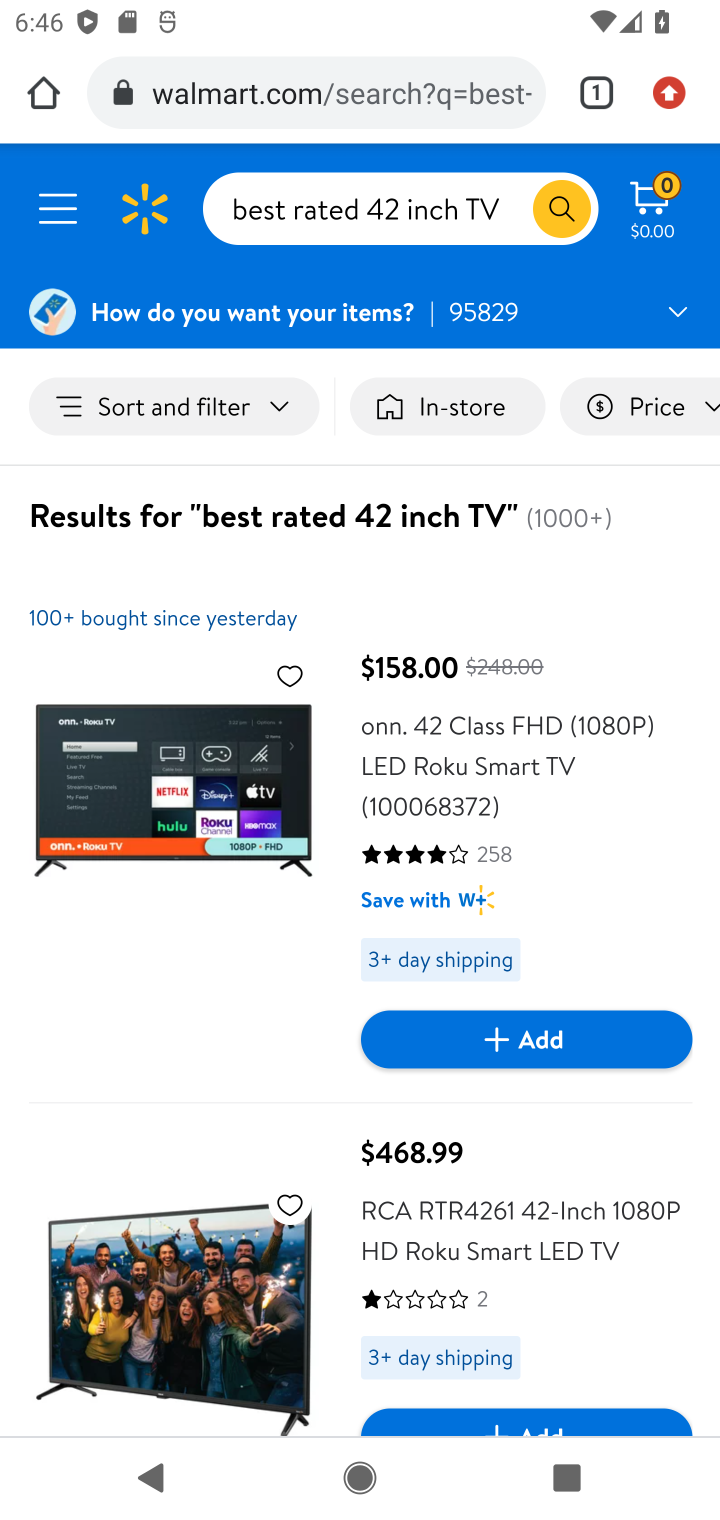
Step 26: task complete